Your task to perform on an android device: What's the weather today? Image 0: 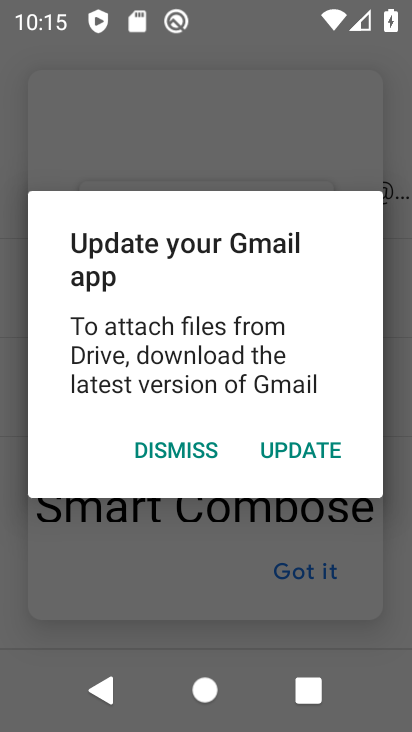
Step 0: press home button
Your task to perform on an android device: What's the weather today? Image 1: 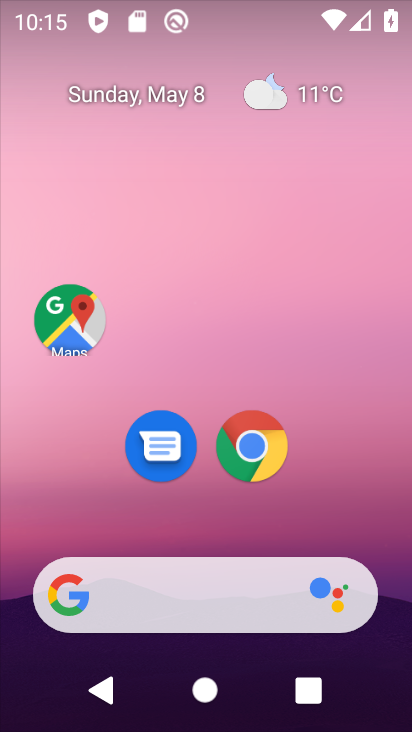
Step 1: click (312, 100)
Your task to perform on an android device: What's the weather today? Image 2: 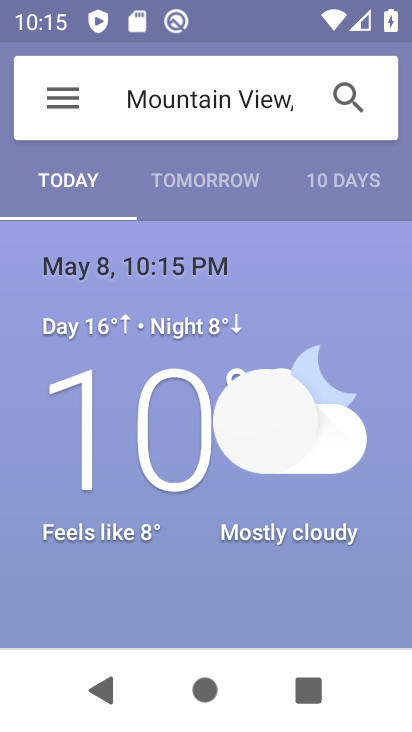
Step 2: task complete